Your task to perform on an android device: What's the weather? Image 0: 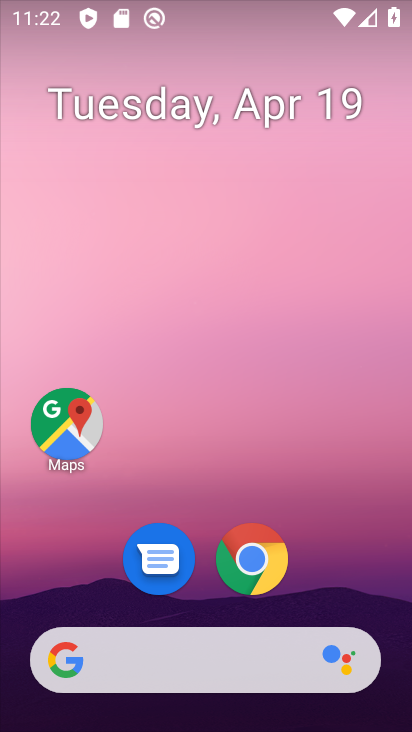
Step 0: drag from (14, 242) to (406, 386)
Your task to perform on an android device: What's the weather? Image 1: 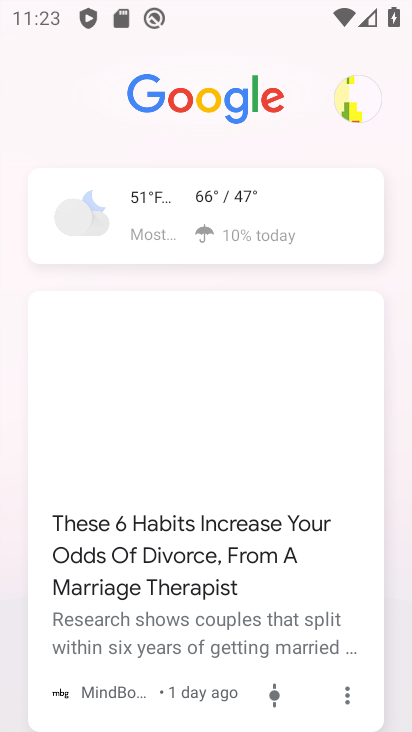
Step 1: click (123, 337)
Your task to perform on an android device: What's the weather? Image 2: 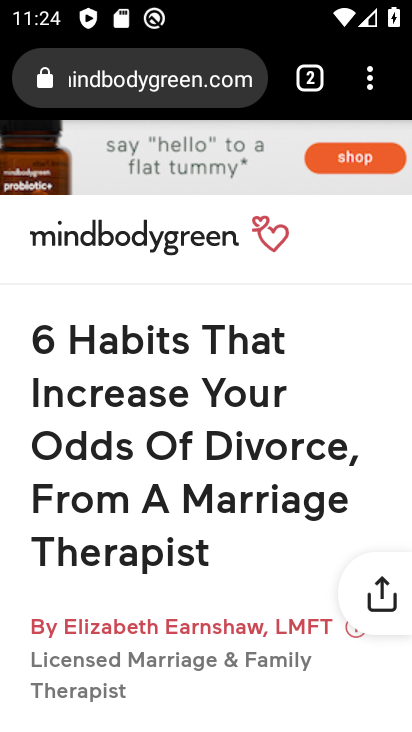
Step 2: press home button
Your task to perform on an android device: What's the weather? Image 3: 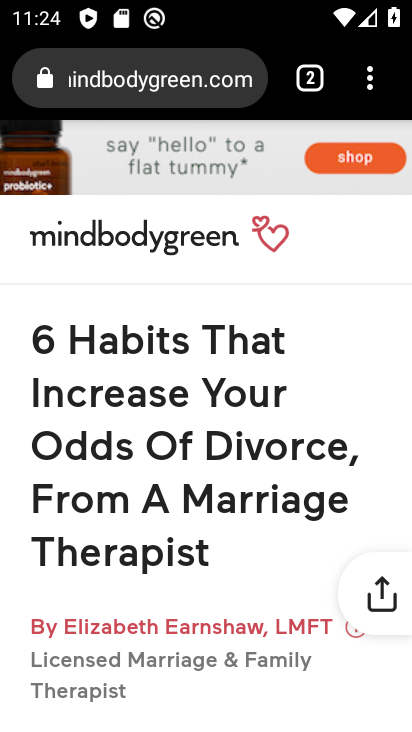
Step 3: press home button
Your task to perform on an android device: What's the weather? Image 4: 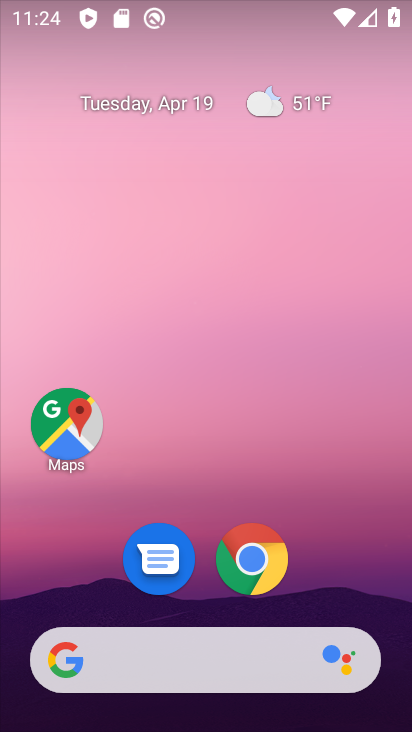
Step 4: drag from (160, 268) to (400, 330)
Your task to perform on an android device: What's the weather? Image 5: 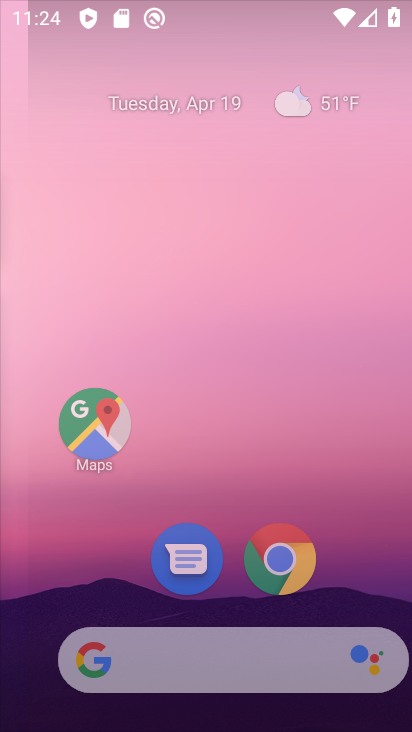
Step 5: drag from (63, 257) to (305, 350)
Your task to perform on an android device: What's the weather? Image 6: 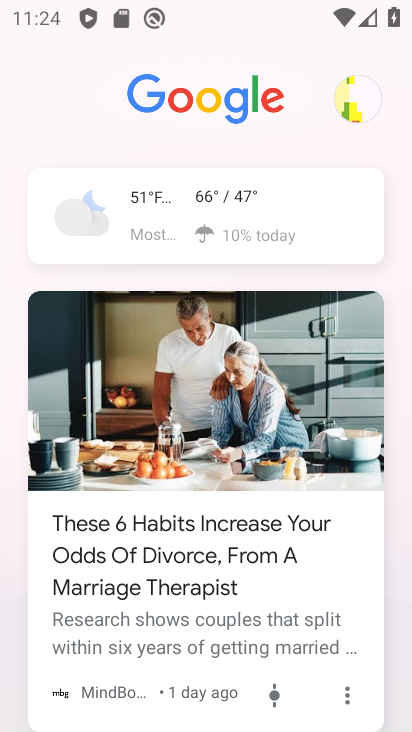
Step 6: click (411, 296)
Your task to perform on an android device: What's the weather? Image 7: 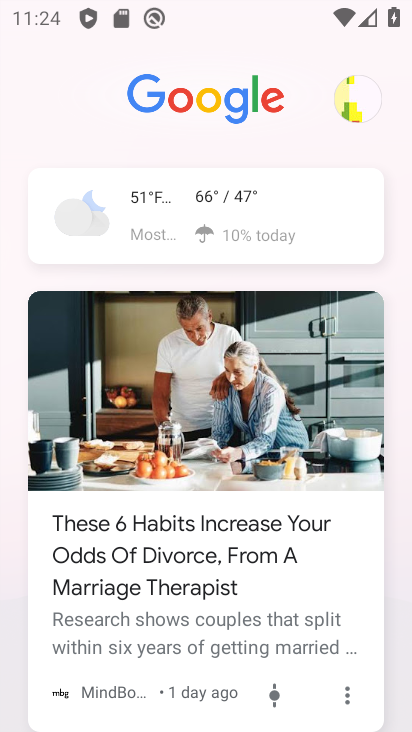
Step 7: click (229, 201)
Your task to perform on an android device: What's the weather? Image 8: 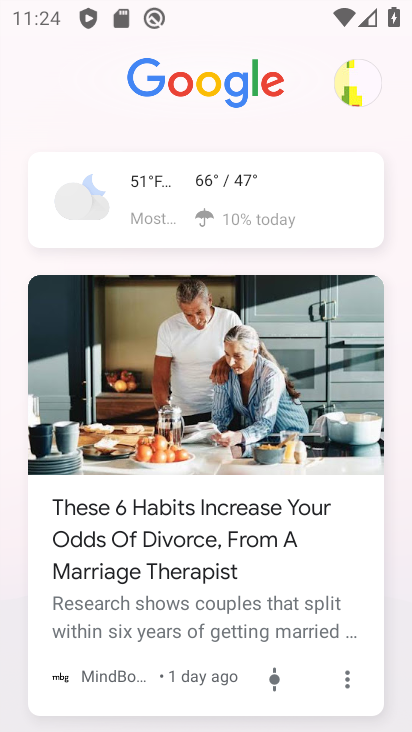
Step 8: click (229, 201)
Your task to perform on an android device: What's the weather? Image 9: 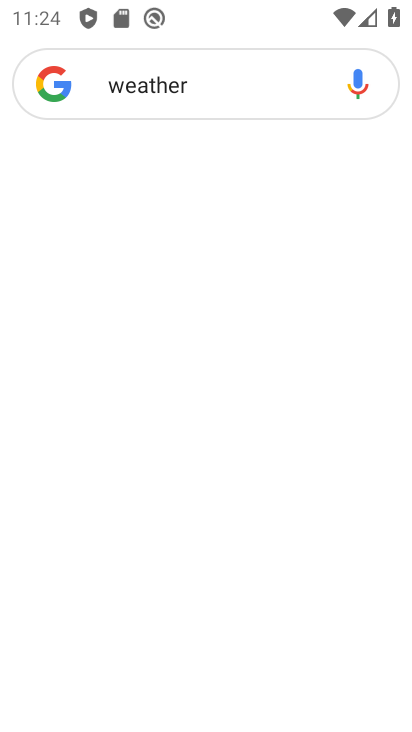
Step 9: click (229, 184)
Your task to perform on an android device: What's the weather? Image 10: 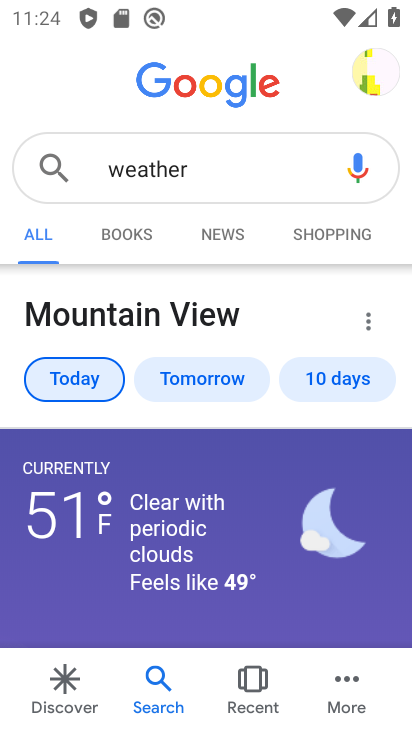
Step 10: click (187, 373)
Your task to perform on an android device: What's the weather? Image 11: 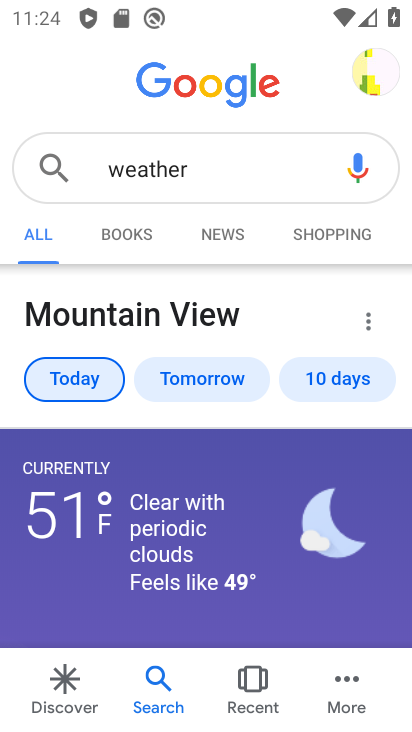
Step 11: click (197, 383)
Your task to perform on an android device: What's the weather? Image 12: 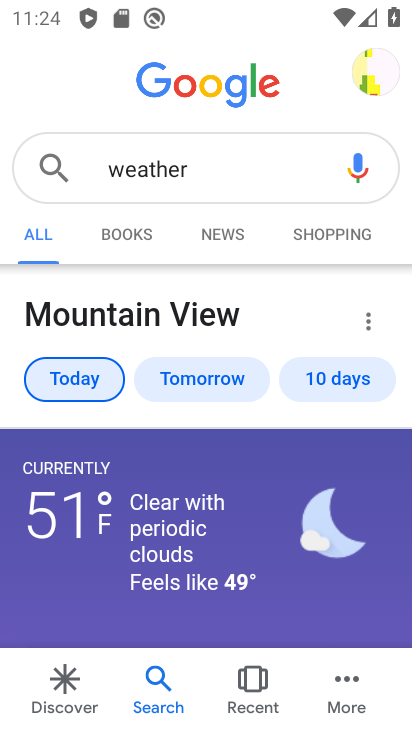
Step 12: click (197, 383)
Your task to perform on an android device: What's the weather? Image 13: 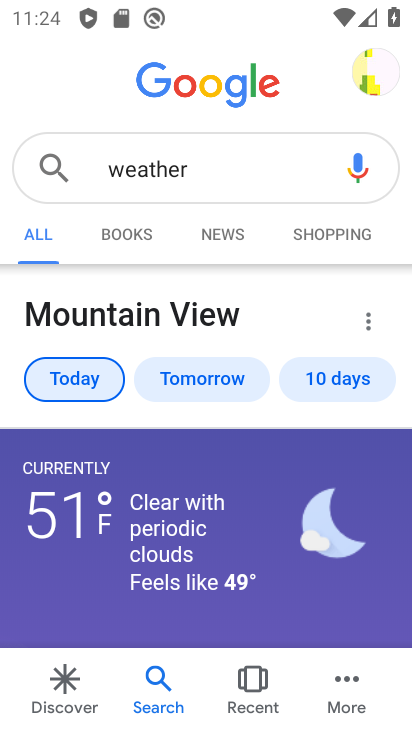
Step 13: click (199, 382)
Your task to perform on an android device: What's the weather? Image 14: 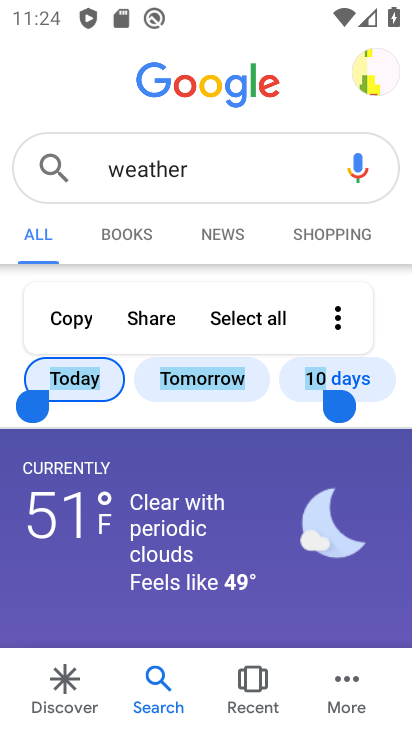
Step 14: task complete